Your task to perform on an android device: Go to accessibility settings Image 0: 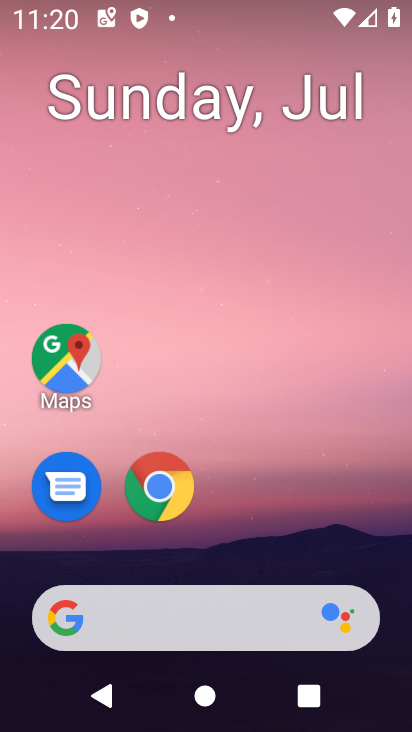
Step 0: press home button
Your task to perform on an android device: Go to accessibility settings Image 1: 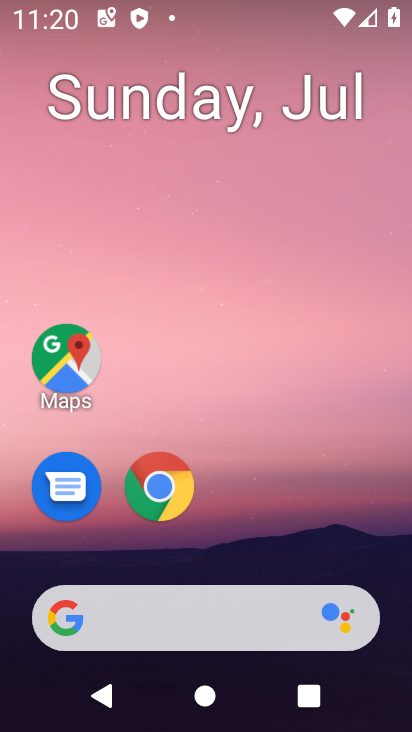
Step 1: drag from (365, 561) to (392, 72)
Your task to perform on an android device: Go to accessibility settings Image 2: 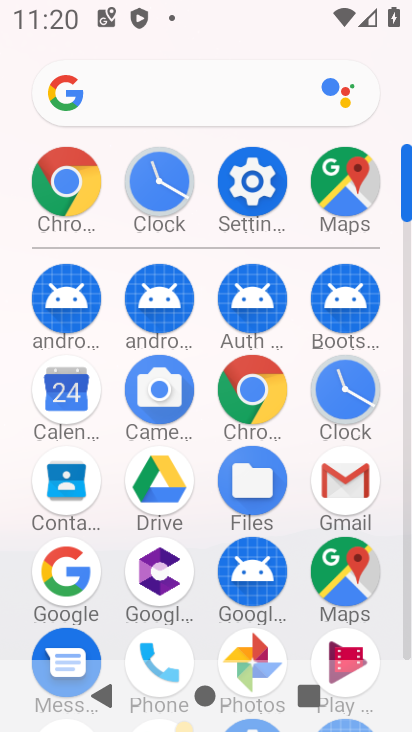
Step 2: click (267, 197)
Your task to perform on an android device: Go to accessibility settings Image 3: 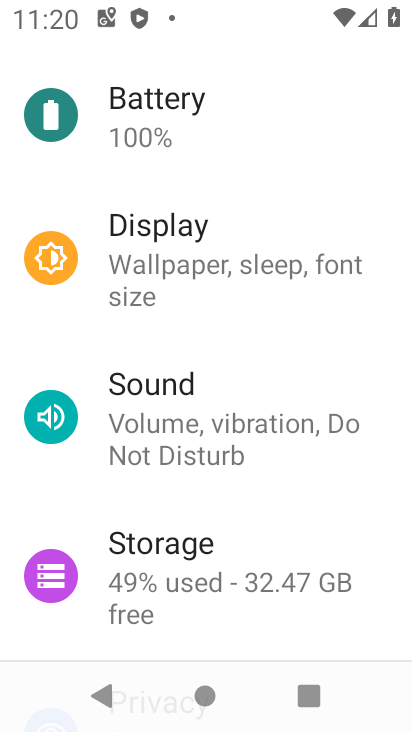
Step 3: drag from (357, 188) to (388, 472)
Your task to perform on an android device: Go to accessibility settings Image 4: 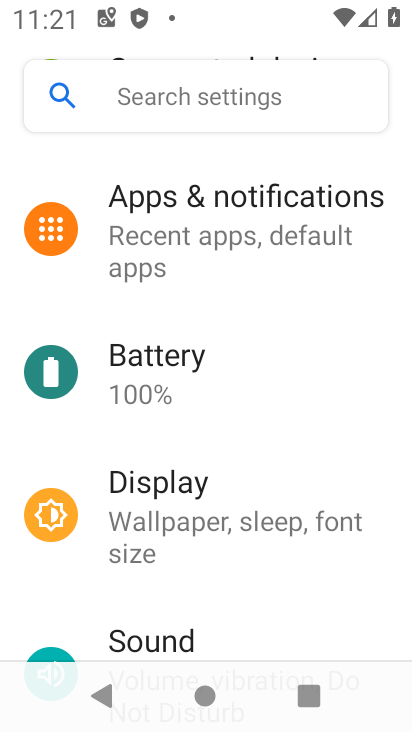
Step 4: drag from (354, 268) to (368, 490)
Your task to perform on an android device: Go to accessibility settings Image 5: 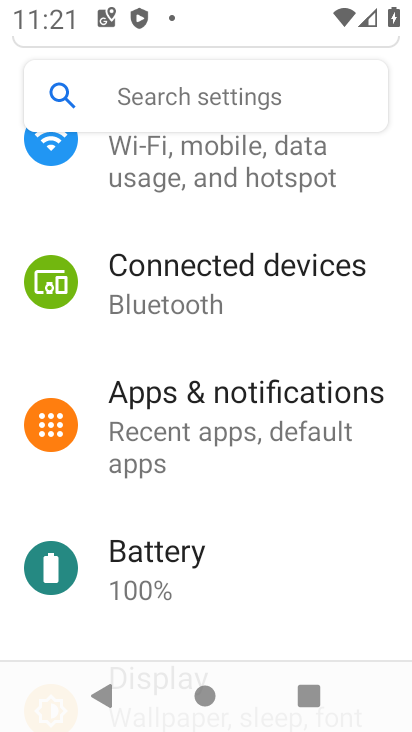
Step 5: drag from (366, 190) to (375, 431)
Your task to perform on an android device: Go to accessibility settings Image 6: 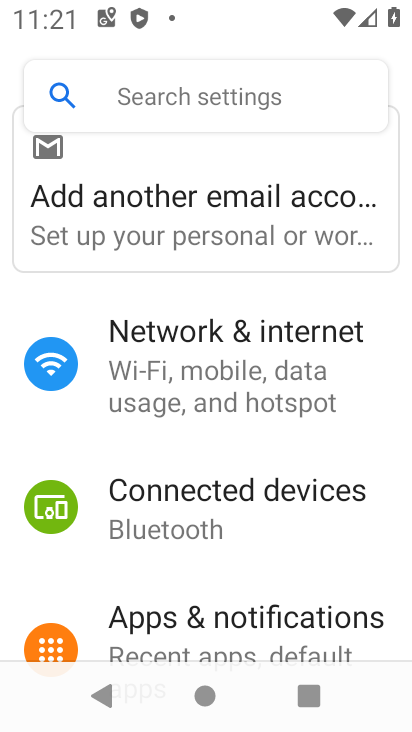
Step 6: drag from (378, 532) to (381, 370)
Your task to perform on an android device: Go to accessibility settings Image 7: 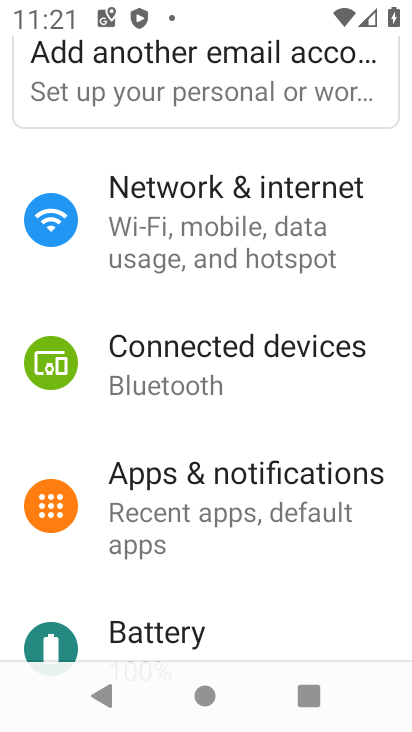
Step 7: drag from (365, 565) to (363, 446)
Your task to perform on an android device: Go to accessibility settings Image 8: 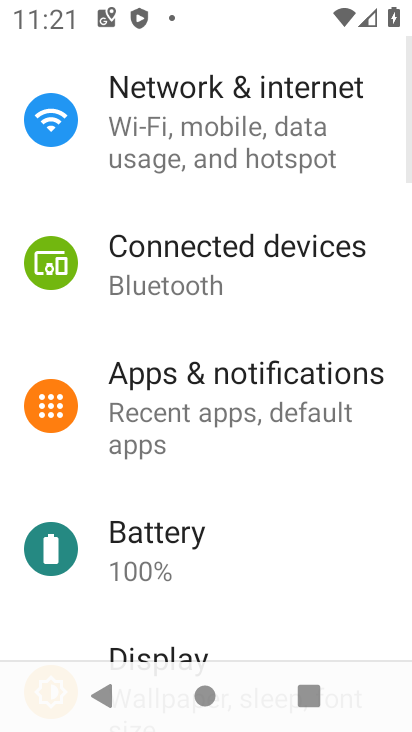
Step 8: drag from (351, 543) to (346, 433)
Your task to perform on an android device: Go to accessibility settings Image 9: 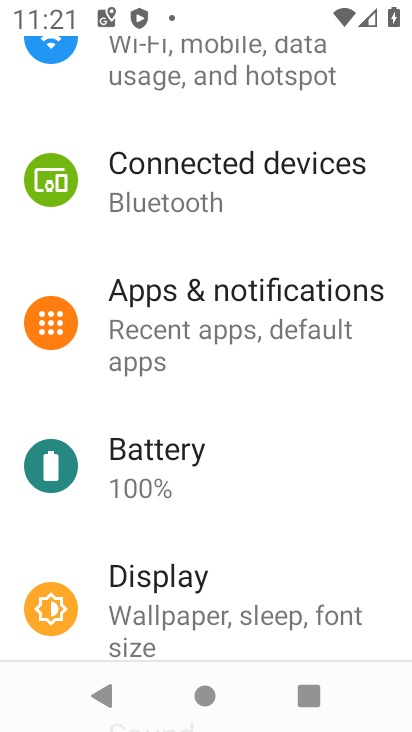
Step 9: drag from (327, 520) to (326, 427)
Your task to perform on an android device: Go to accessibility settings Image 10: 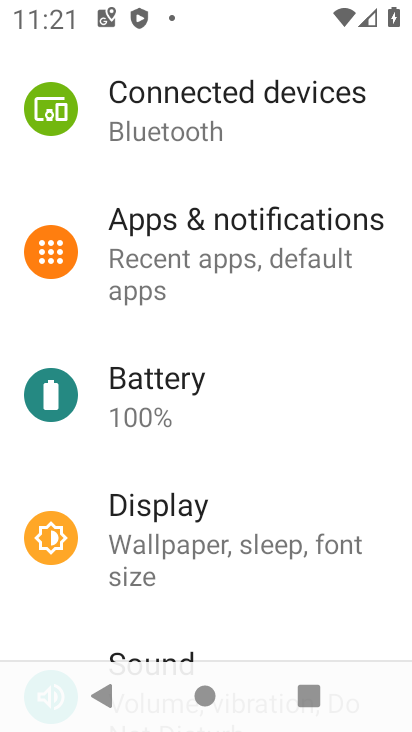
Step 10: drag from (323, 579) to (321, 460)
Your task to perform on an android device: Go to accessibility settings Image 11: 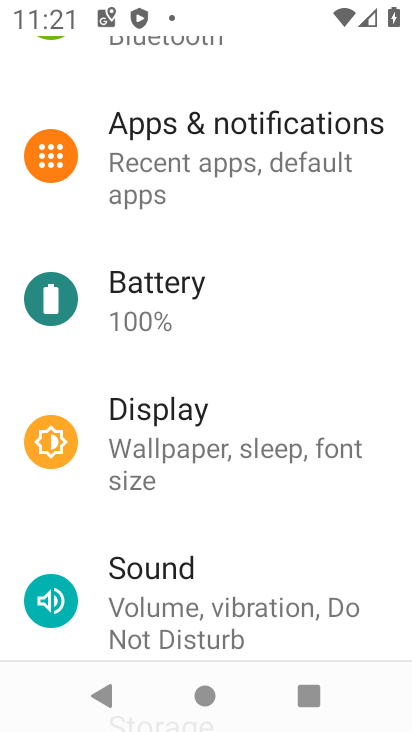
Step 11: drag from (342, 610) to (343, 411)
Your task to perform on an android device: Go to accessibility settings Image 12: 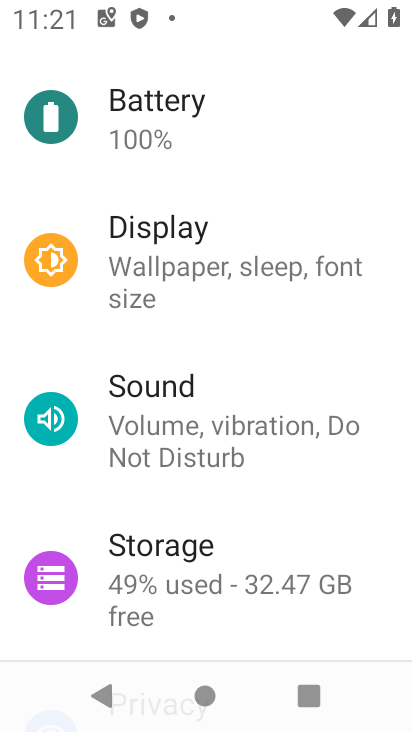
Step 12: drag from (352, 496) to (360, 372)
Your task to perform on an android device: Go to accessibility settings Image 13: 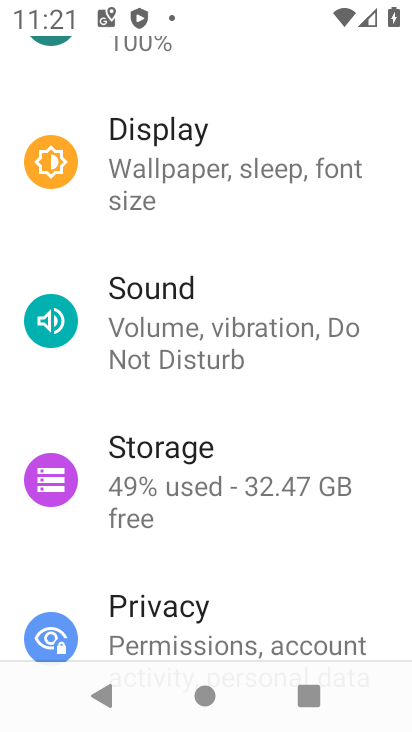
Step 13: drag from (355, 568) to (355, 438)
Your task to perform on an android device: Go to accessibility settings Image 14: 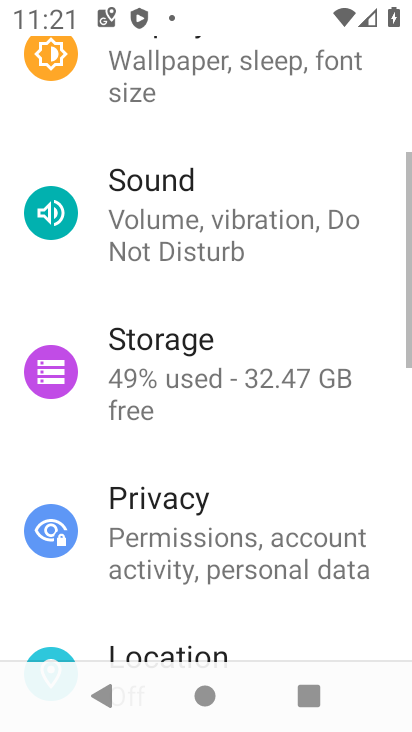
Step 14: drag from (343, 580) to (344, 446)
Your task to perform on an android device: Go to accessibility settings Image 15: 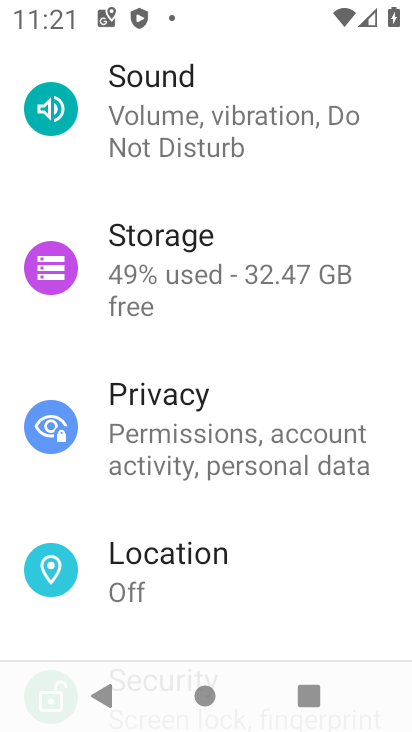
Step 15: drag from (361, 558) to (346, 440)
Your task to perform on an android device: Go to accessibility settings Image 16: 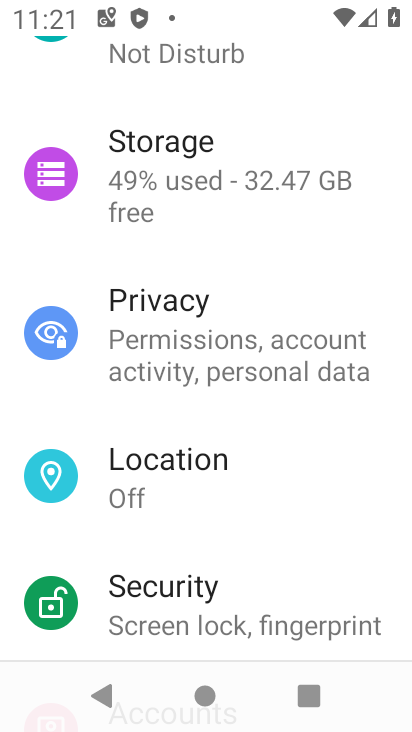
Step 16: drag from (349, 516) to (340, 366)
Your task to perform on an android device: Go to accessibility settings Image 17: 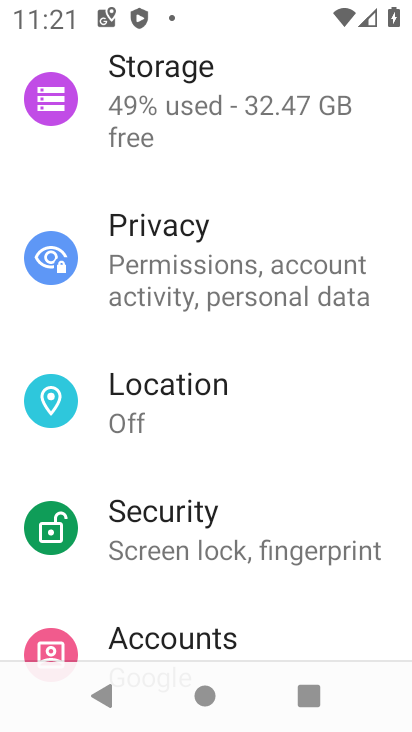
Step 17: drag from (344, 583) to (336, 403)
Your task to perform on an android device: Go to accessibility settings Image 18: 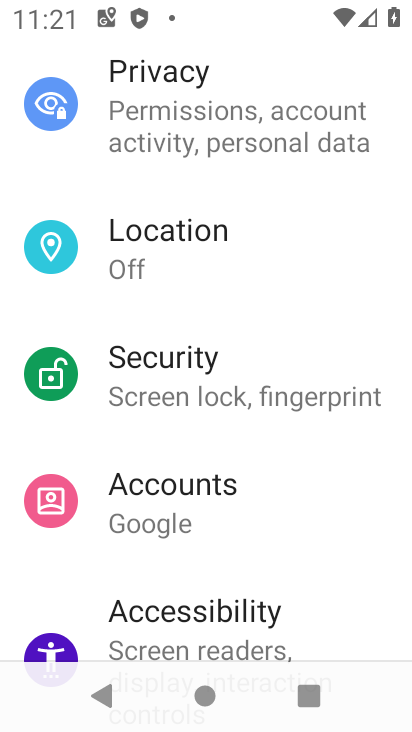
Step 18: drag from (342, 514) to (345, 346)
Your task to perform on an android device: Go to accessibility settings Image 19: 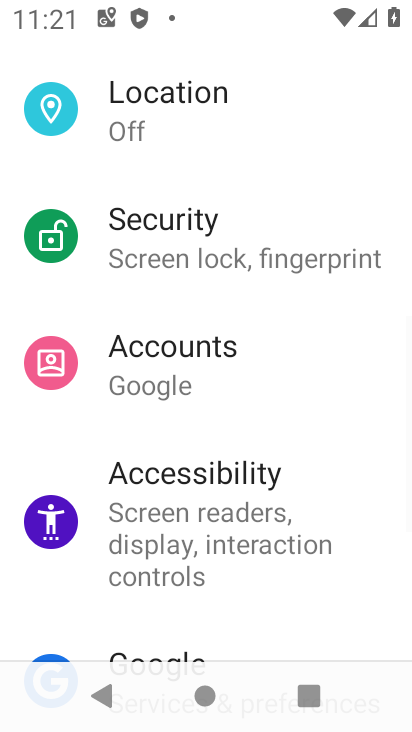
Step 19: click (320, 497)
Your task to perform on an android device: Go to accessibility settings Image 20: 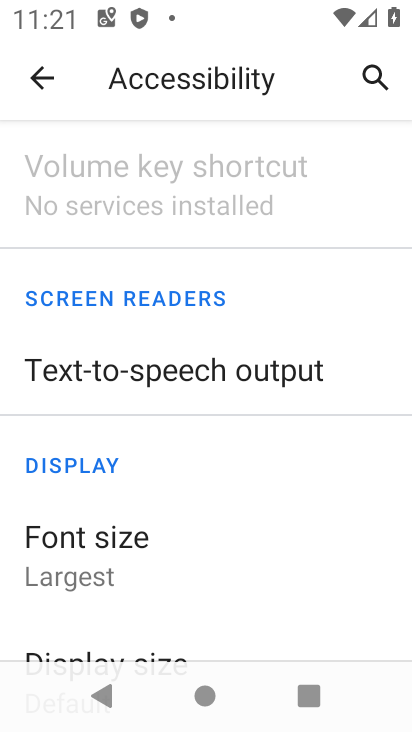
Step 20: task complete